Your task to perform on an android device: Go to calendar. Show me events next week Image 0: 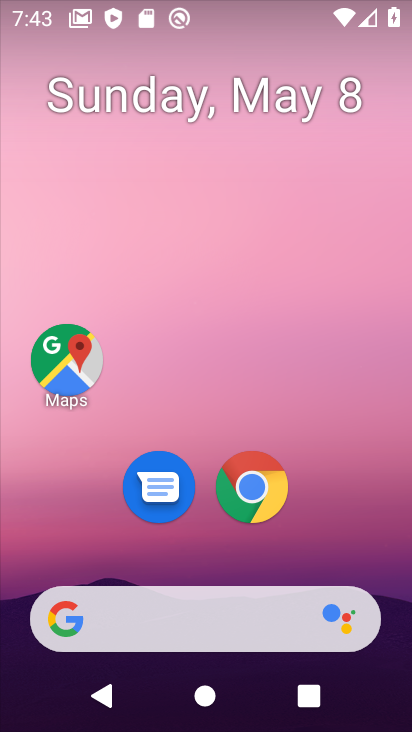
Step 0: drag from (377, 490) to (408, 91)
Your task to perform on an android device: Go to calendar. Show me events next week Image 1: 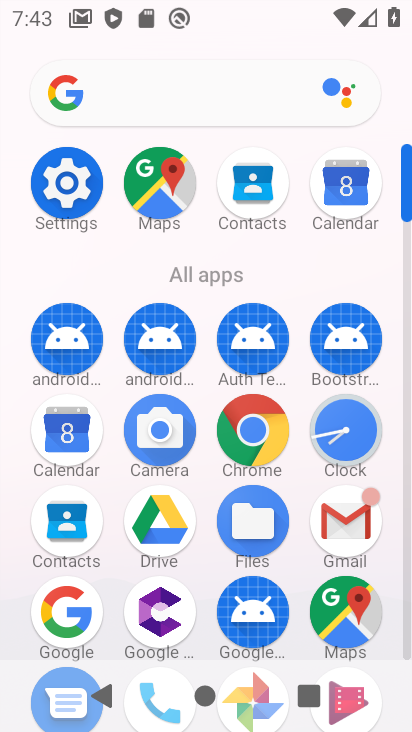
Step 1: click (336, 199)
Your task to perform on an android device: Go to calendar. Show me events next week Image 2: 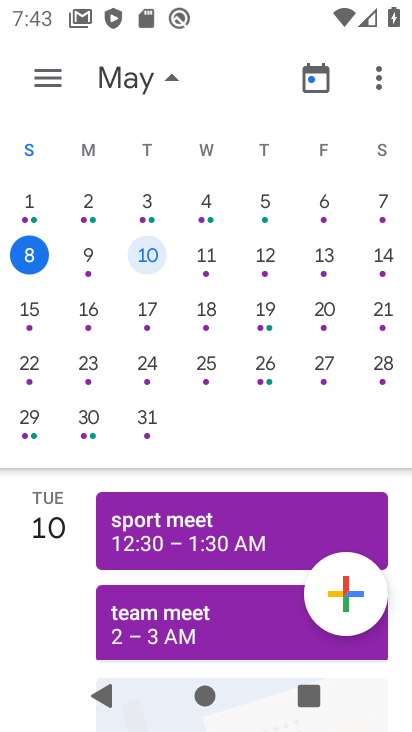
Step 2: click (56, 92)
Your task to perform on an android device: Go to calendar. Show me events next week Image 3: 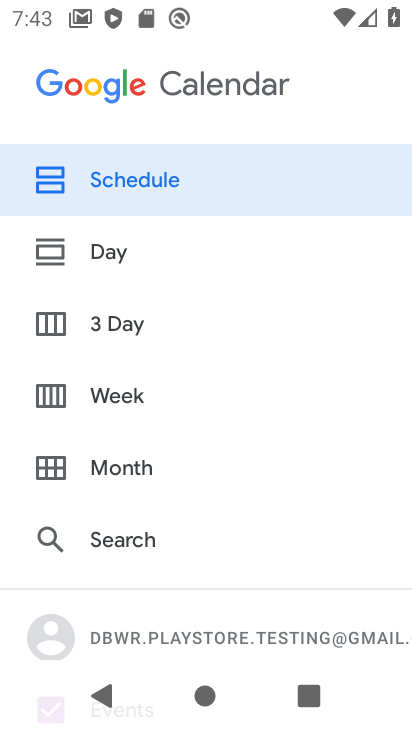
Step 3: click (81, 309)
Your task to perform on an android device: Go to calendar. Show me events next week Image 4: 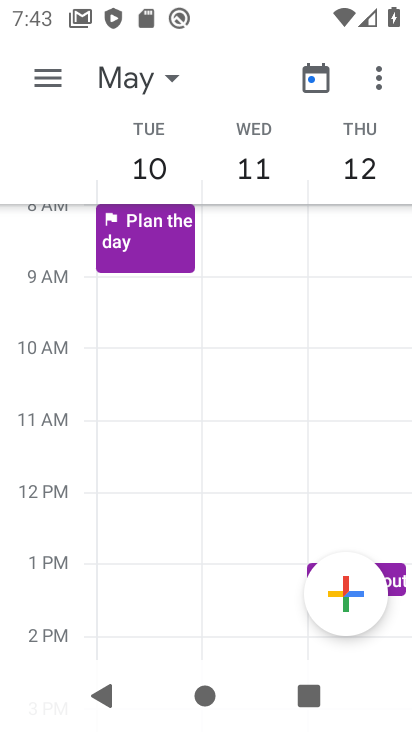
Step 4: click (58, 74)
Your task to perform on an android device: Go to calendar. Show me events next week Image 5: 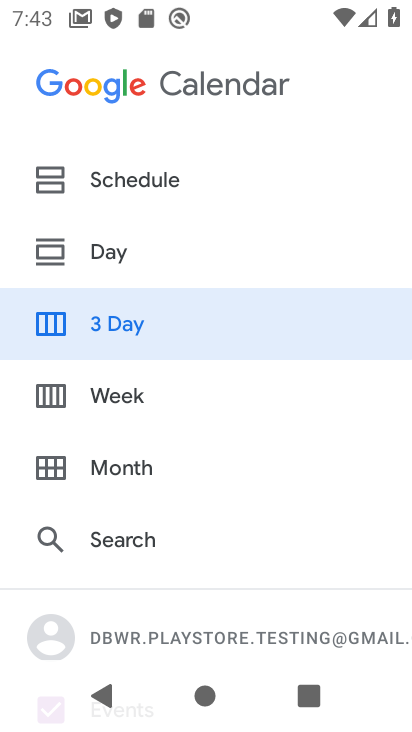
Step 5: click (98, 447)
Your task to perform on an android device: Go to calendar. Show me events next week Image 6: 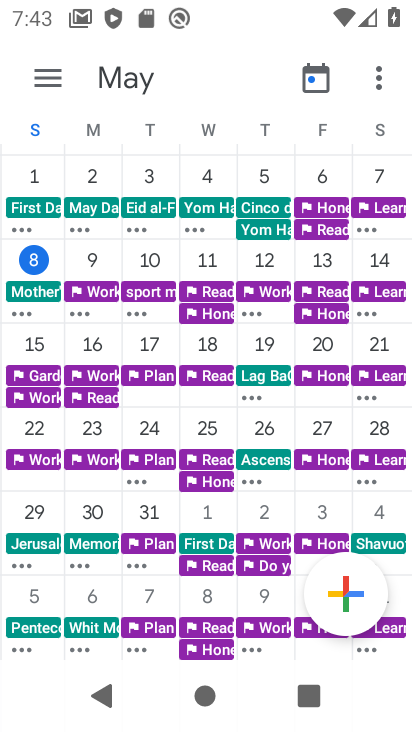
Step 6: task complete